Your task to perform on an android device: Open battery settings Image 0: 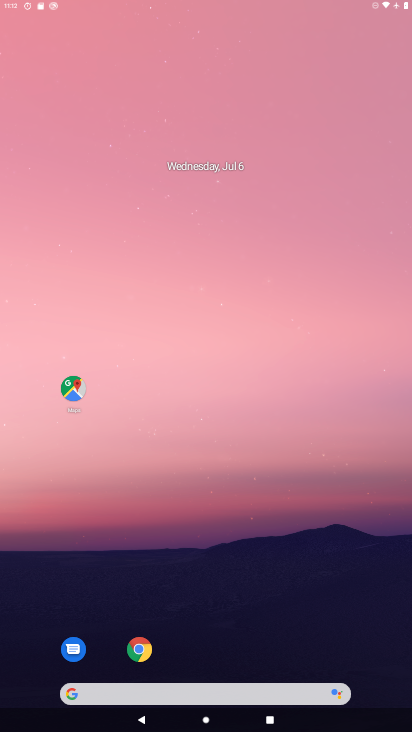
Step 0: press back button
Your task to perform on an android device: Open battery settings Image 1: 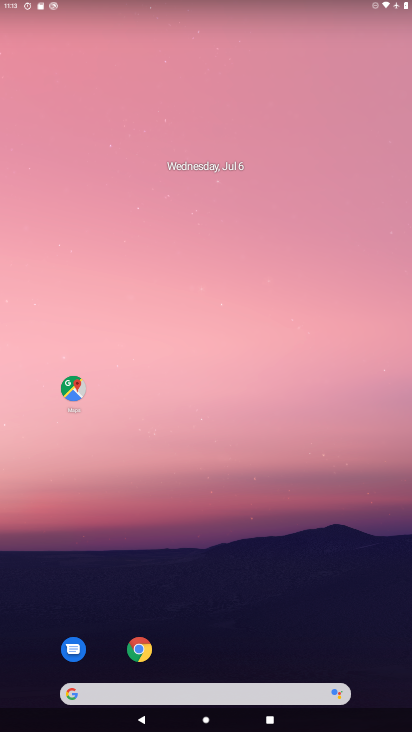
Step 1: drag from (379, 628) to (358, 157)
Your task to perform on an android device: Open battery settings Image 2: 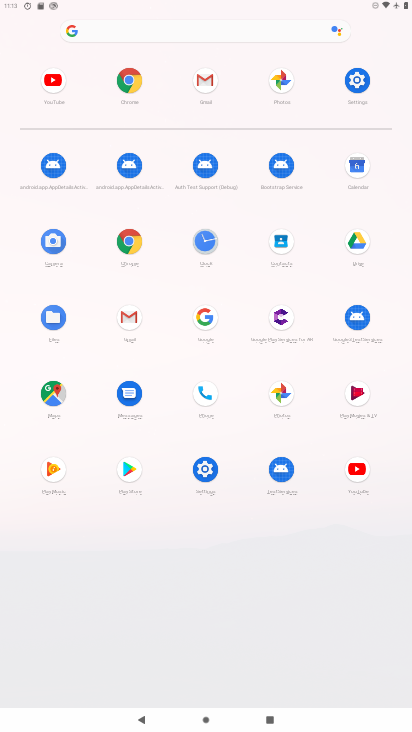
Step 2: click (356, 82)
Your task to perform on an android device: Open battery settings Image 3: 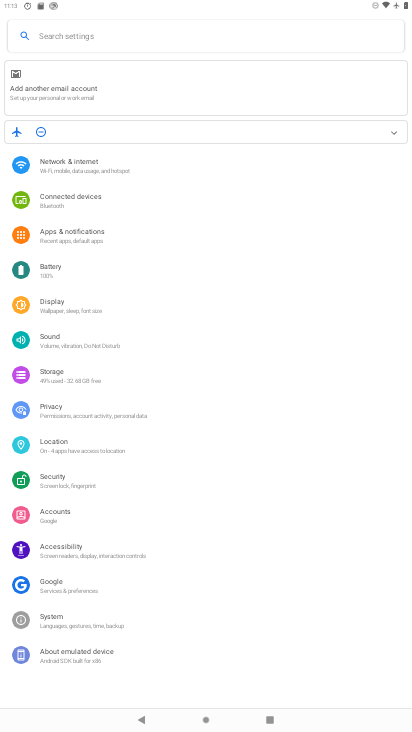
Step 3: click (47, 266)
Your task to perform on an android device: Open battery settings Image 4: 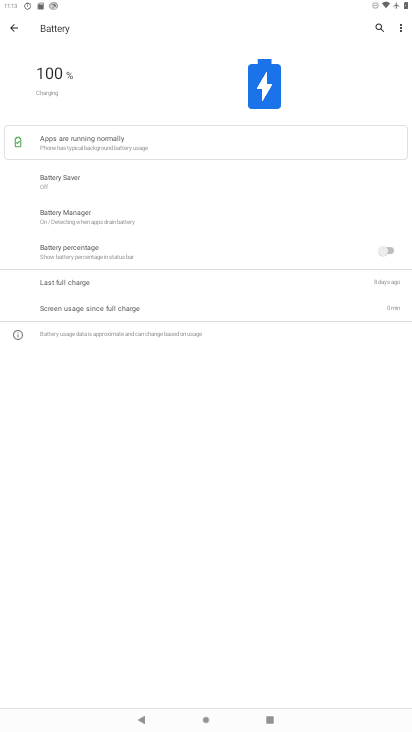
Step 4: task complete